Your task to perform on an android device: Open Maps and search for coffee Image 0: 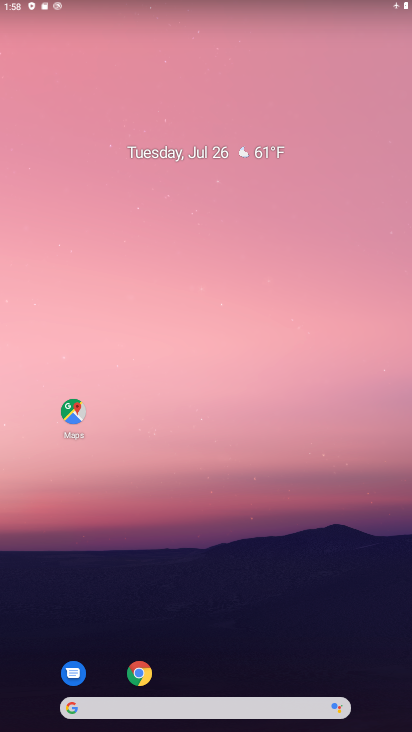
Step 0: drag from (176, 657) to (179, 214)
Your task to perform on an android device: Open Maps and search for coffee Image 1: 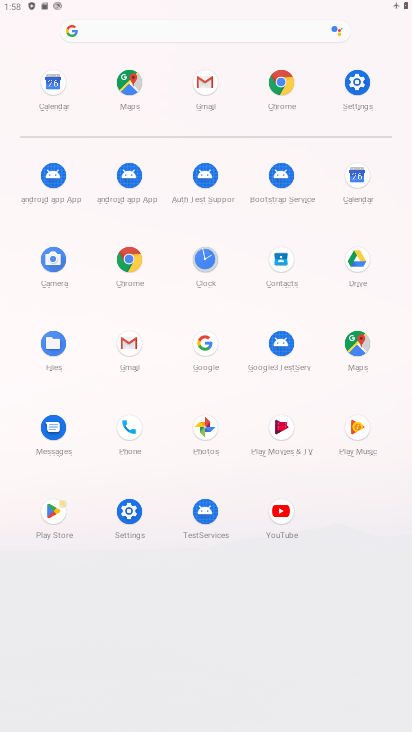
Step 1: click (362, 348)
Your task to perform on an android device: Open Maps and search for coffee Image 2: 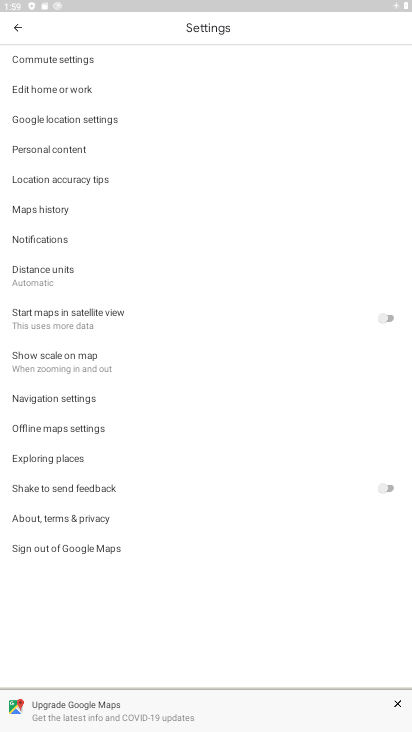
Step 2: click (17, 28)
Your task to perform on an android device: Open Maps and search for coffee Image 3: 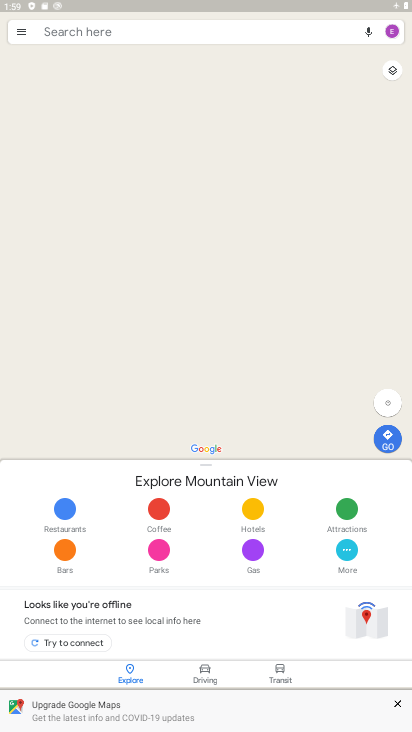
Step 3: click (82, 31)
Your task to perform on an android device: Open Maps and search for coffee Image 4: 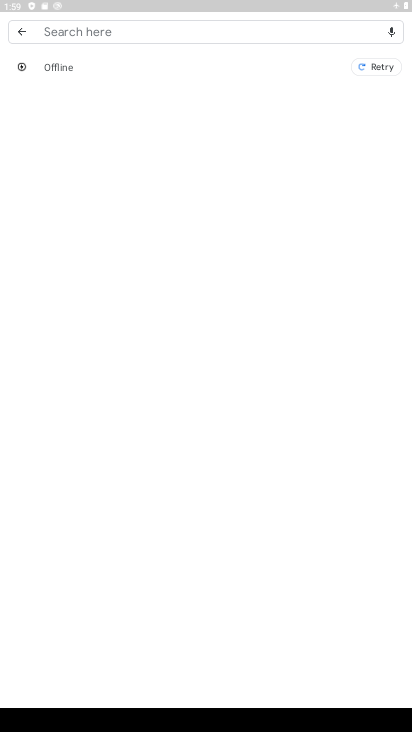
Step 4: click (97, 29)
Your task to perform on an android device: Open Maps and search for coffee Image 5: 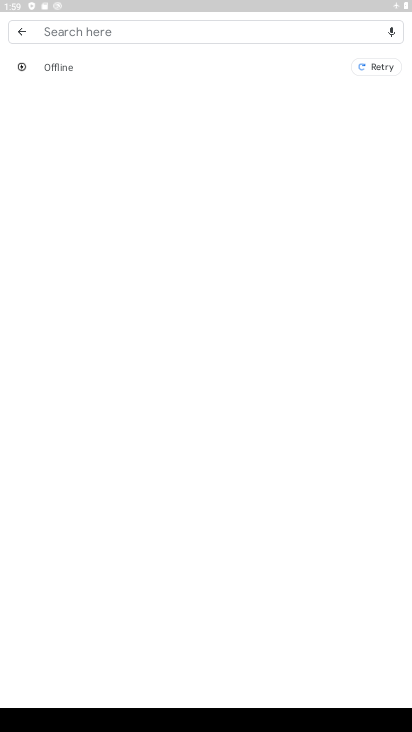
Step 5: type "coffee"
Your task to perform on an android device: Open Maps and search for coffee Image 6: 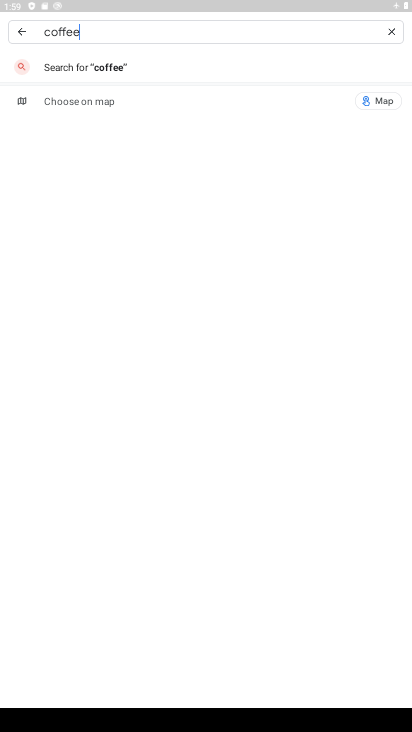
Step 6: click (107, 67)
Your task to perform on an android device: Open Maps and search for coffee Image 7: 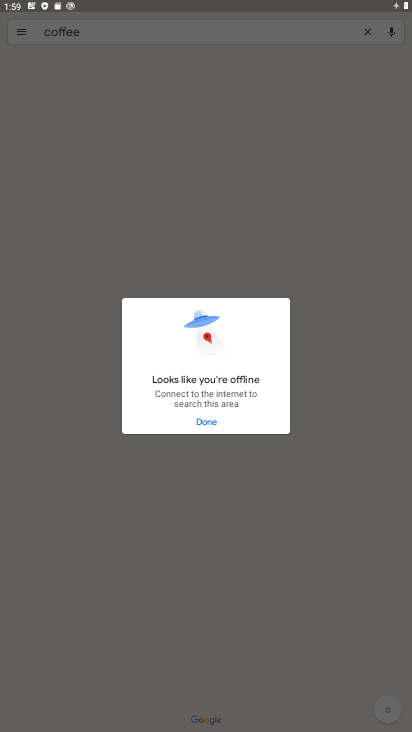
Step 7: click (213, 419)
Your task to perform on an android device: Open Maps and search for coffee Image 8: 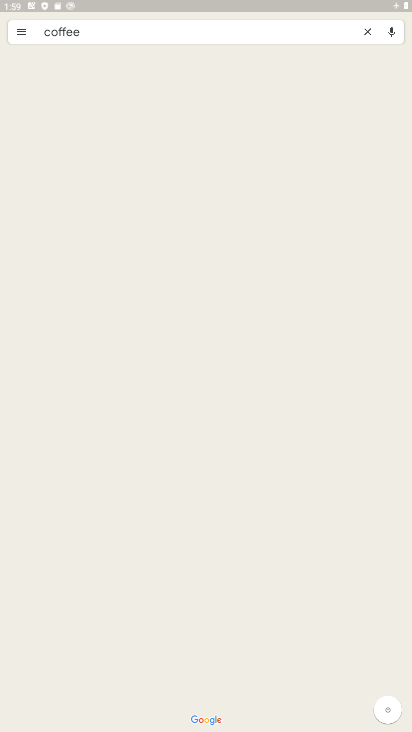
Step 8: task complete